Your task to perform on an android device: What's the weather going to be tomorrow? Image 0: 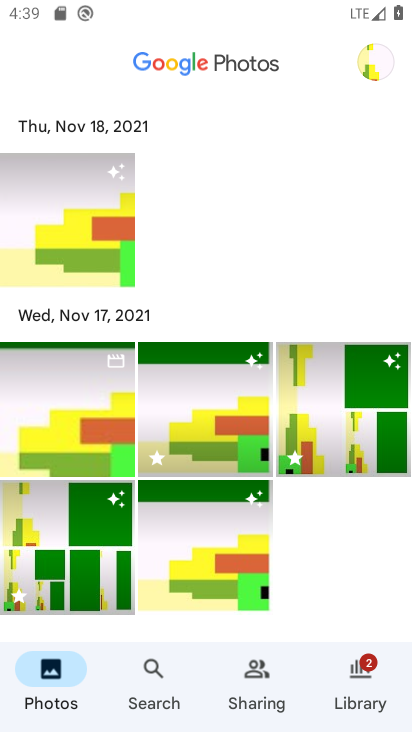
Step 0: press home button
Your task to perform on an android device: What's the weather going to be tomorrow? Image 1: 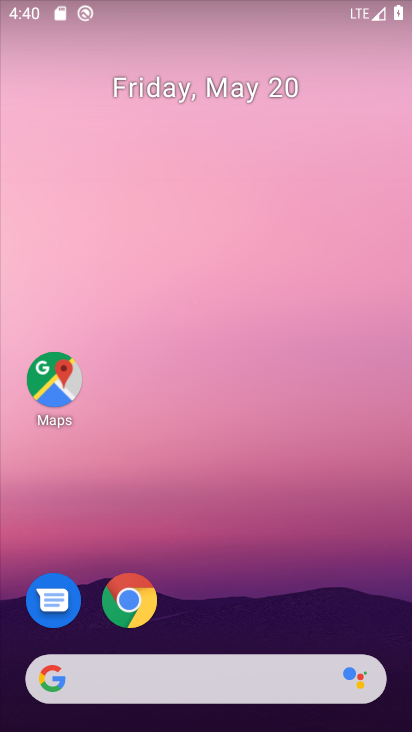
Step 1: drag from (259, 575) to (197, 81)
Your task to perform on an android device: What's the weather going to be tomorrow? Image 2: 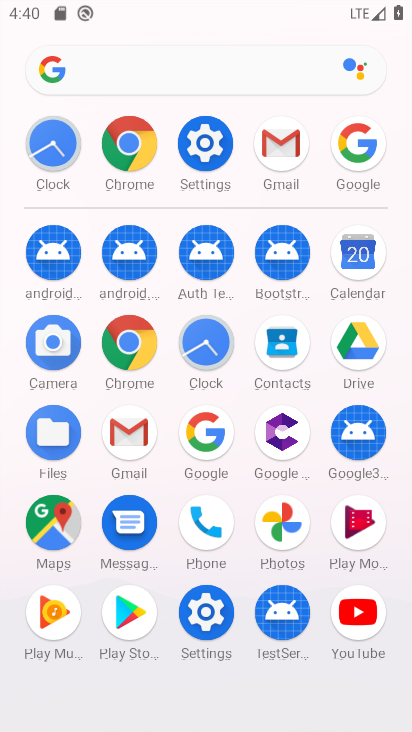
Step 2: click (207, 425)
Your task to perform on an android device: What's the weather going to be tomorrow? Image 3: 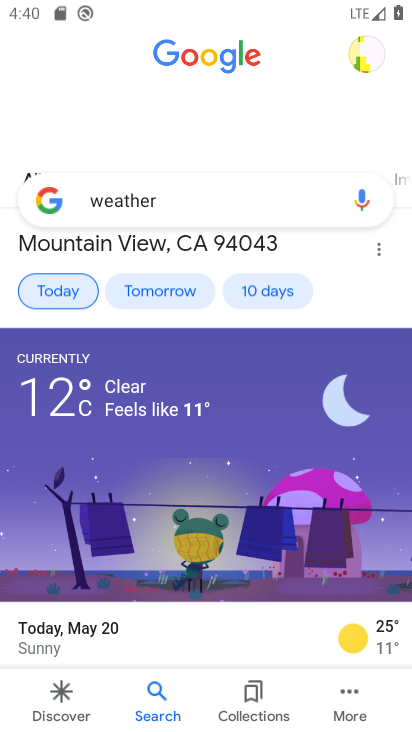
Step 3: click (166, 290)
Your task to perform on an android device: What's the weather going to be tomorrow? Image 4: 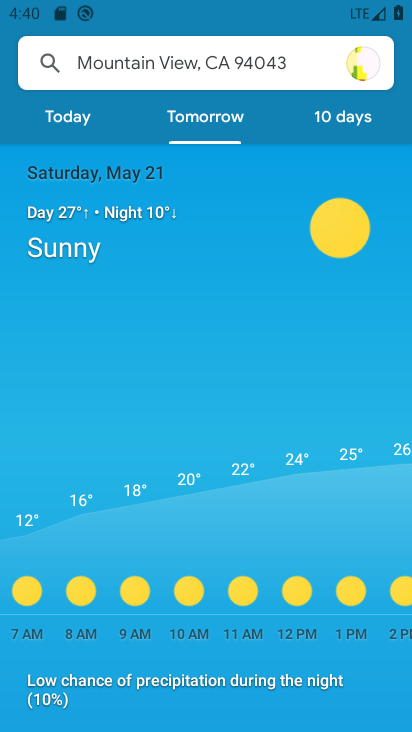
Step 4: task complete